Your task to perform on an android device: Do I have any events tomorrow? Image 0: 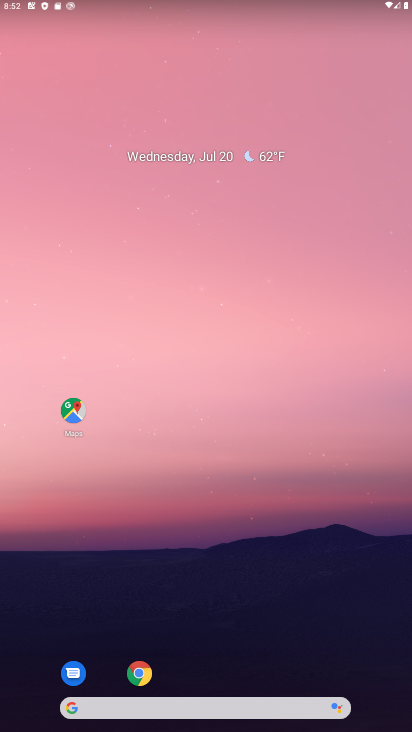
Step 0: drag from (370, 708) to (411, 28)
Your task to perform on an android device: Do I have any events tomorrow? Image 1: 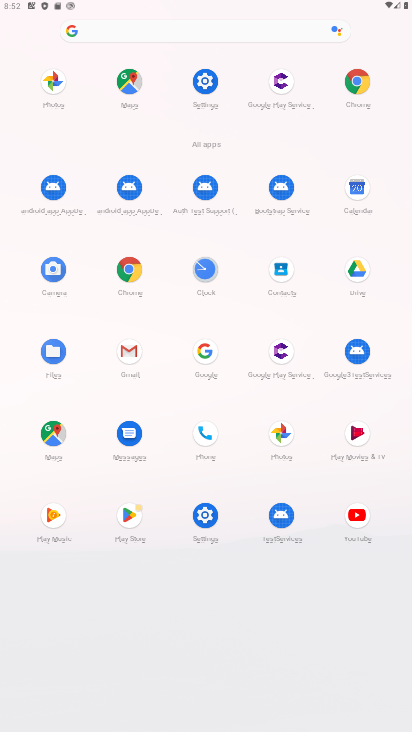
Step 1: click (347, 187)
Your task to perform on an android device: Do I have any events tomorrow? Image 2: 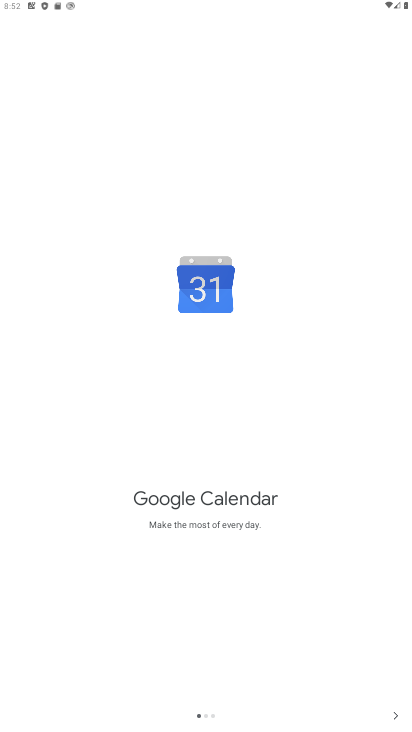
Step 2: click (392, 716)
Your task to perform on an android device: Do I have any events tomorrow? Image 3: 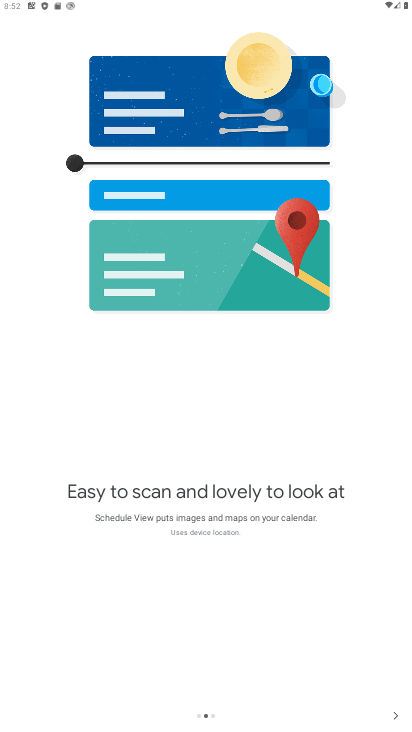
Step 3: click (391, 716)
Your task to perform on an android device: Do I have any events tomorrow? Image 4: 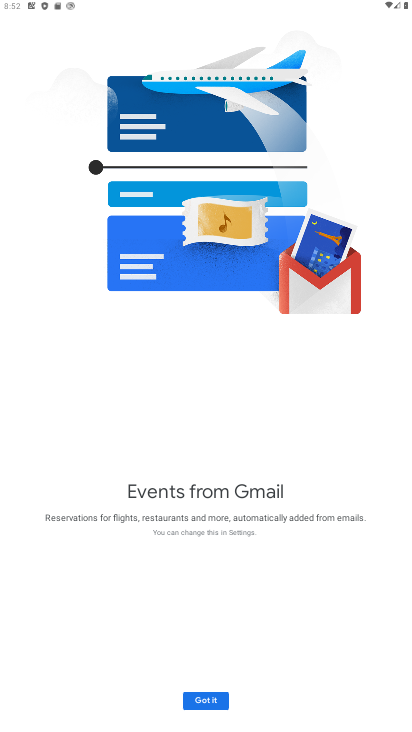
Step 4: click (393, 719)
Your task to perform on an android device: Do I have any events tomorrow? Image 5: 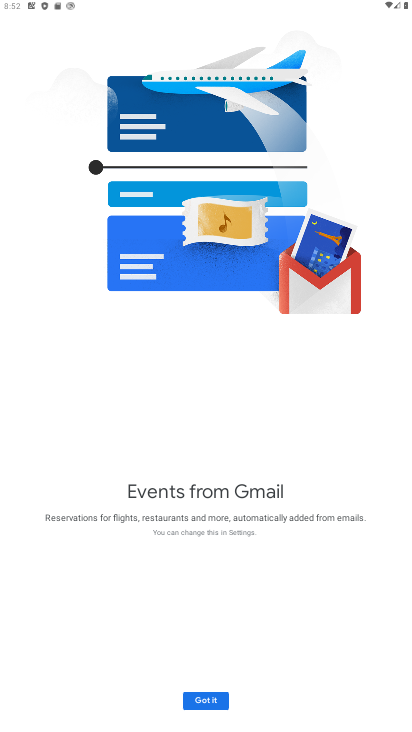
Step 5: click (151, 704)
Your task to perform on an android device: Do I have any events tomorrow? Image 6: 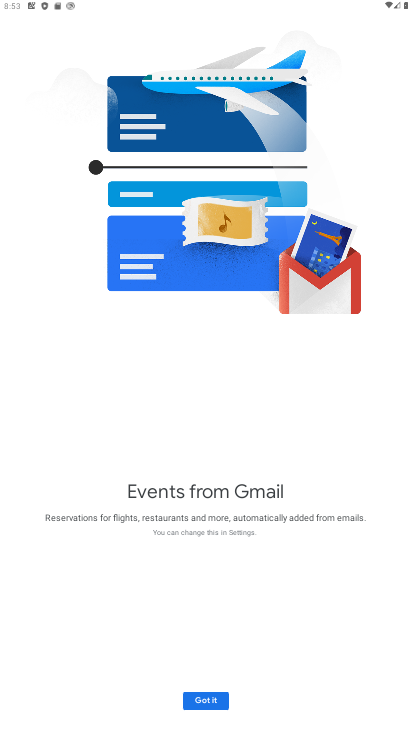
Step 6: click (208, 700)
Your task to perform on an android device: Do I have any events tomorrow? Image 7: 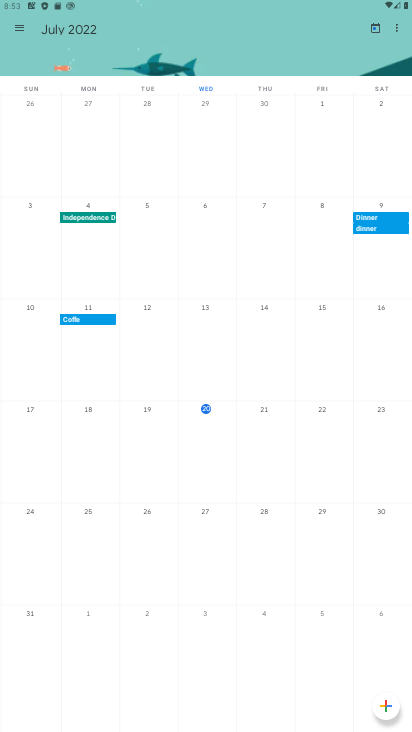
Step 7: click (55, 33)
Your task to perform on an android device: Do I have any events tomorrow? Image 8: 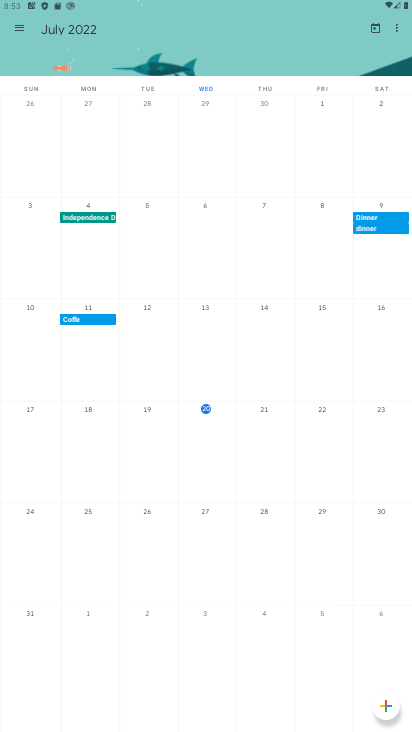
Step 8: click (258, 411)
Your task to perform on an android device: Do I have any events tomorrow? Image 9: 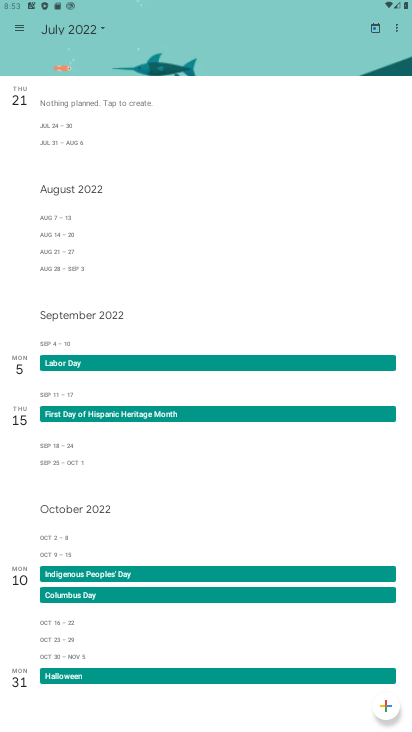
Step 9: task complete